Your task to perform on an android device: Toggle the flashlight Image 0: 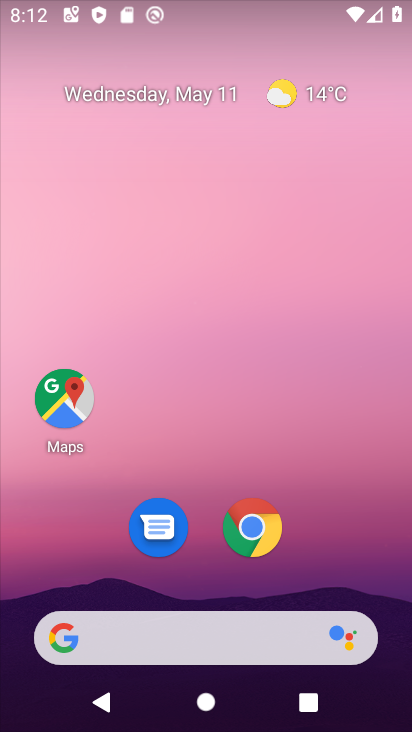
Step 0: drag from (220, 10) to (254, 676)
Your task to perform on an android device: Toggle the flashlight Image 1: 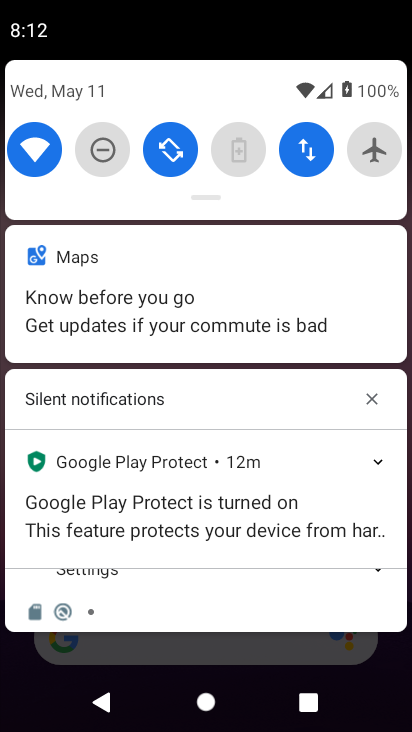
Step 1: task complete